Your task to perform on an android device: turn off location history Image 0: 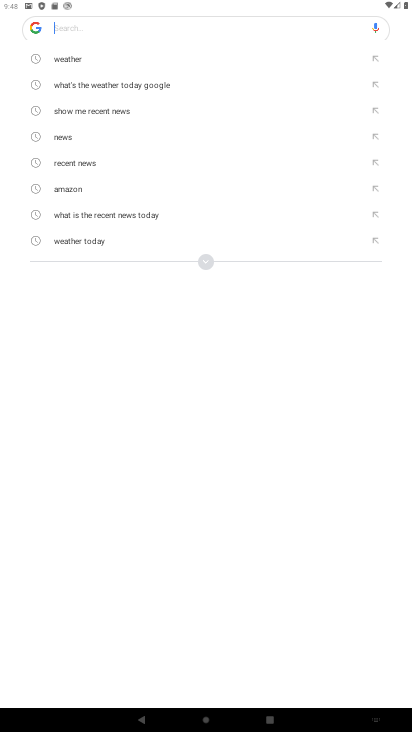
Step 0: press home button
Your task to perform on an android device: turn off location history Image 1: 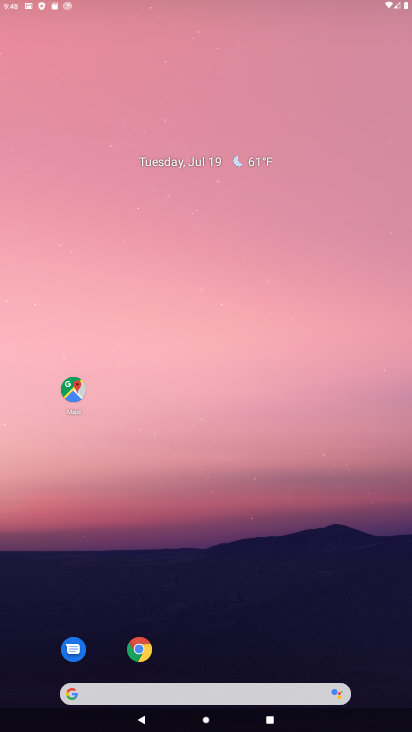
Step 1: drag from (399, 648) to (283, 219)
Your task to perform on an android device: turn off location history Image 2: 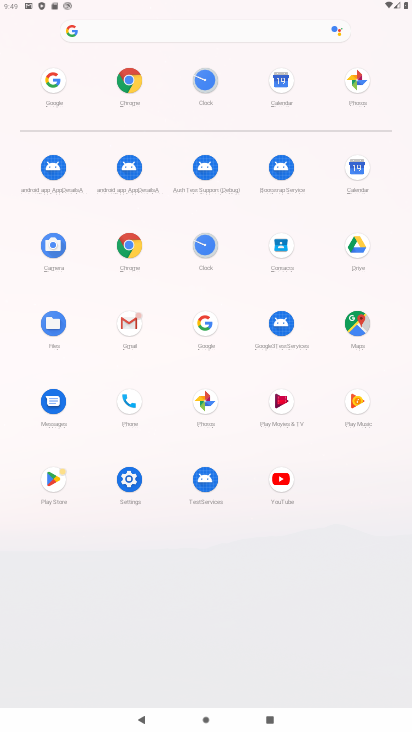
Step 2: click (134, 475)
Your task to perform on an android device: turn off location history Image 3: 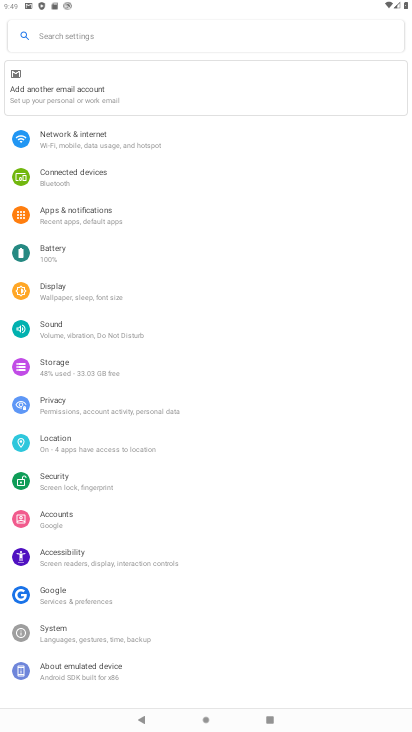
Step 3: click (57, 452)
Your task to perform on an android device: turn off location history Image 4: 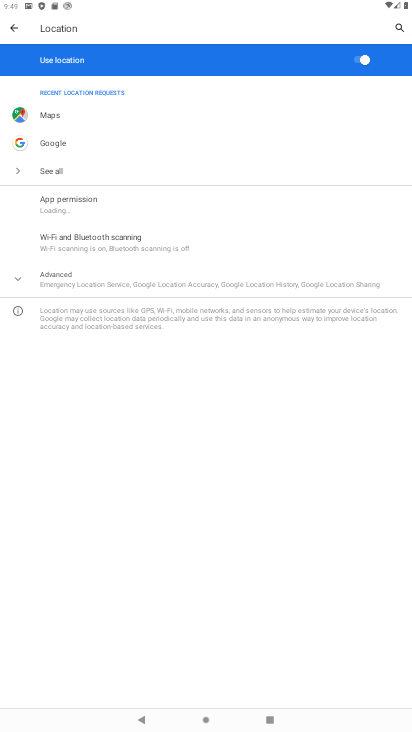
Step 4: click (52, 285)
Your task to perform on an android device: turn off location history Image 5: 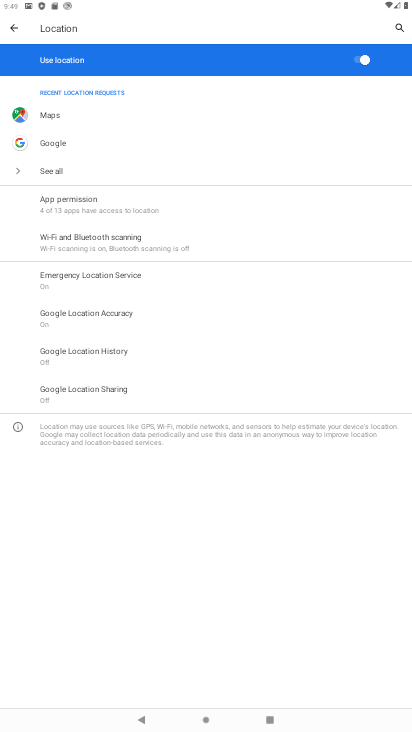
Step 5: click (151, 355)
Your task to perform on an android device: turn off location history Image 6: 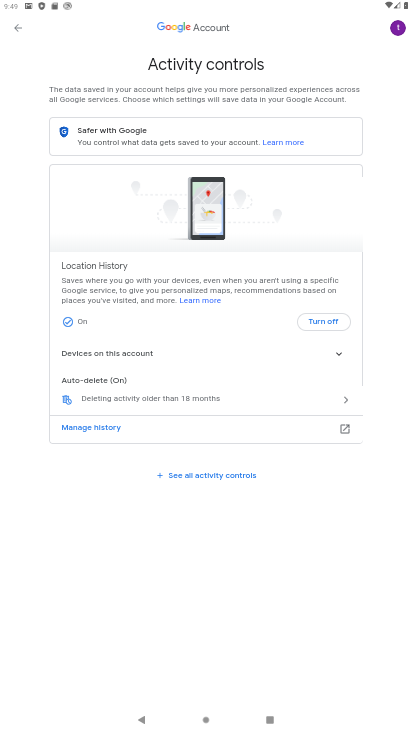
Step 6: task complete